Your task to perform on an android device: toggle data saver in the chrome app Image 0: 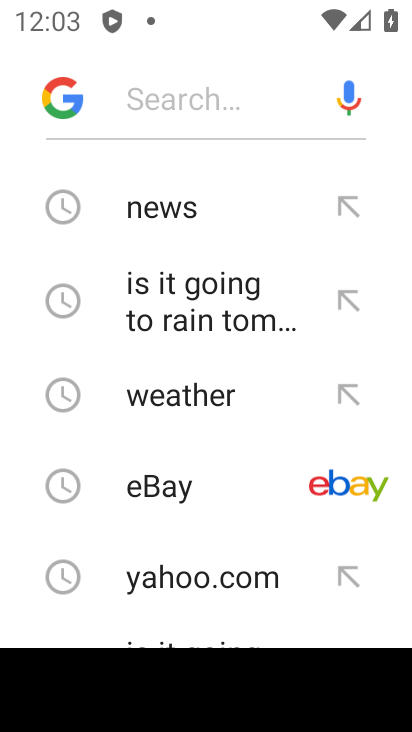
Step 0: press back button
Your task to perform on an android device: toggle data saver in the chrome app Image 1: 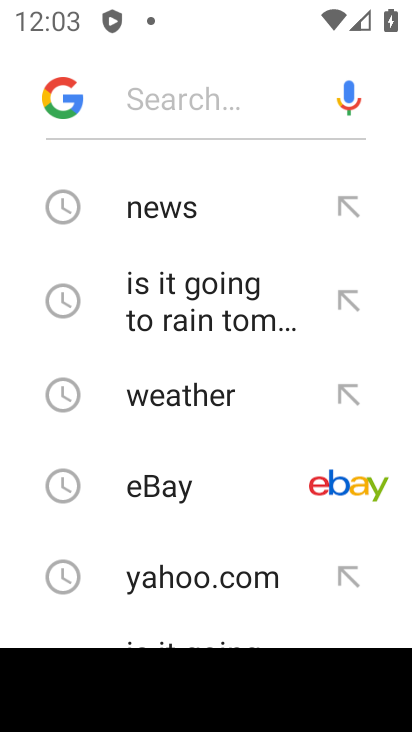
Step 1: press back button
Your task to perform on an android device: toggle data saver in the chrome app Image 2: 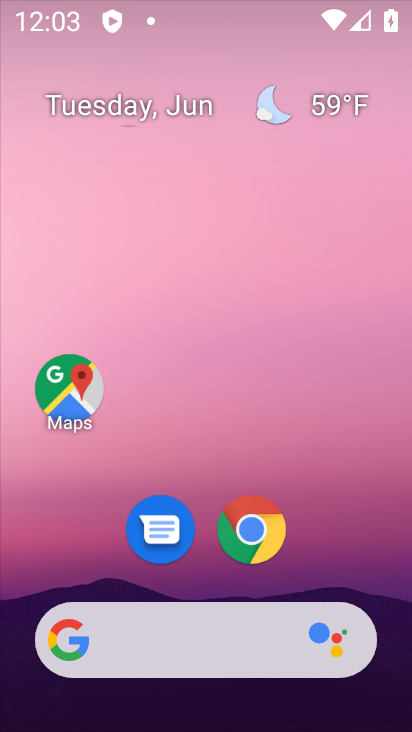
Step 2: press back button
Your task to perform on an android device: toggle data saver in the chrome app Image 3: 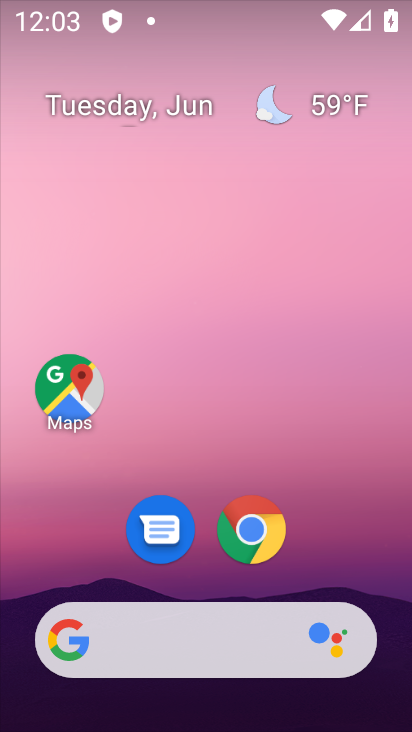
Step 3: press home button
Your task to perform on an android device: toggle data saver in the chrome app Image 4: 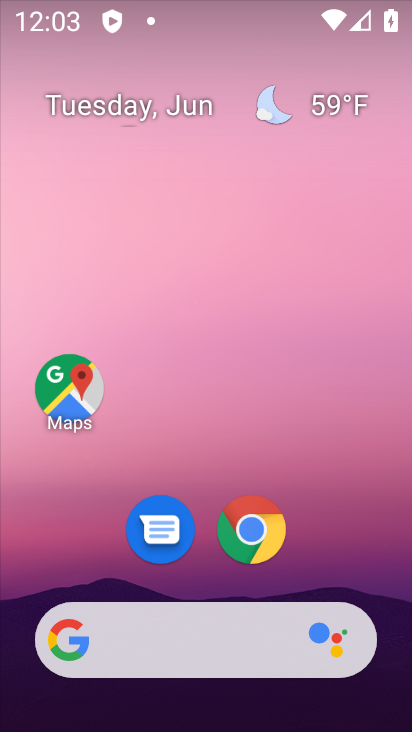
Step 4: drag from (269, 695) to (158, 101)
Your task to perform on an android device: toggle data saver in the chrome app Image 5: 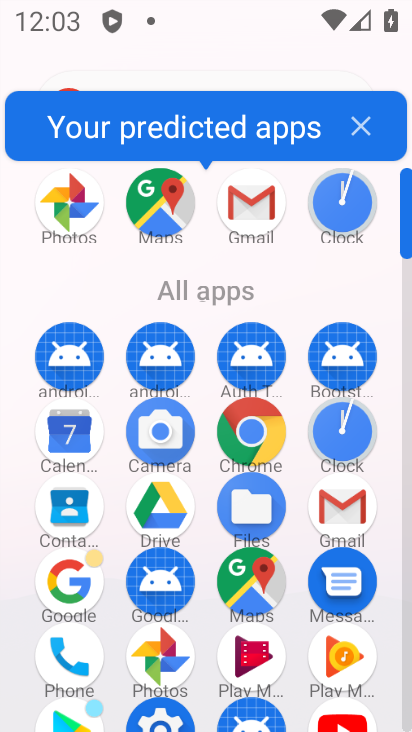
Step 5: click (263, 427)
Your task to perform on an android device: toggle data saver in the chrome app Image 6: 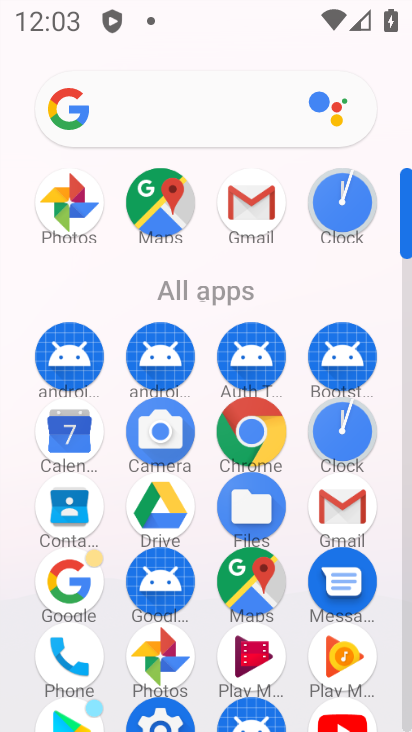
Step 6: click (251, 421)
Your task to perform on an android device: toggle data saver in the chrome app Image 7: 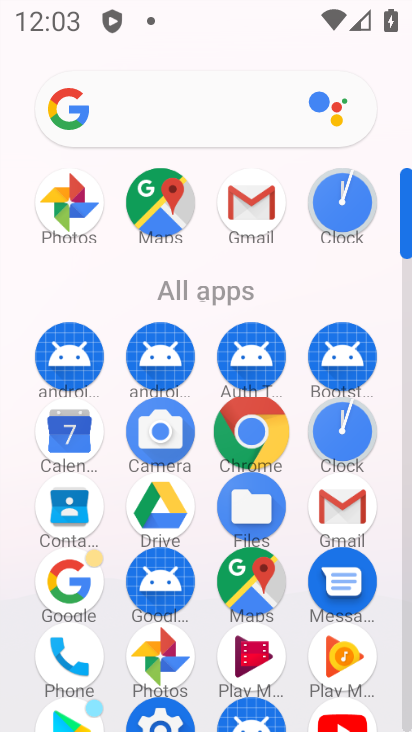
Step 7: click (251, 421)
Your task to perform on an android device: toggle data saver in the chrome app Image 8: 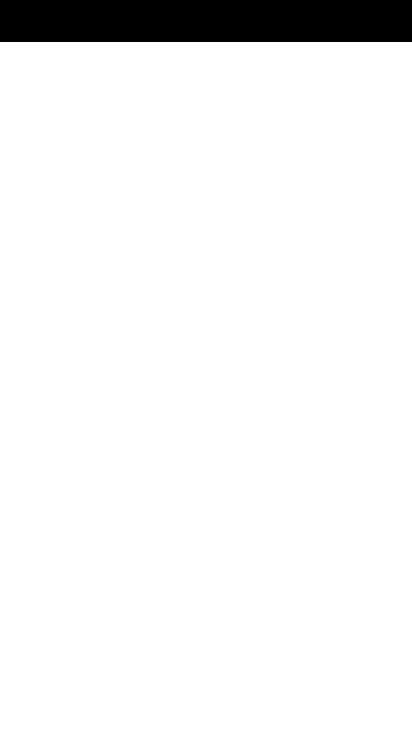
Step 8: click (250, 414)
Your task to perform on an android device: toggle data saver in the chrome app Image 9: 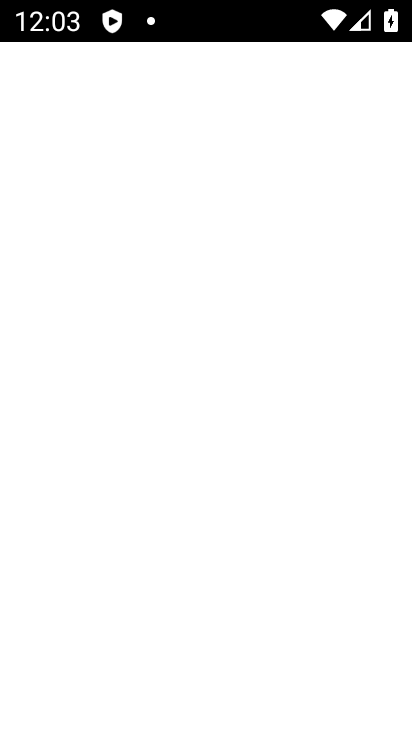
Step 9: click (250, 414)
Your task to perform on an android device: toggle data saver in the chrome app Image 10: 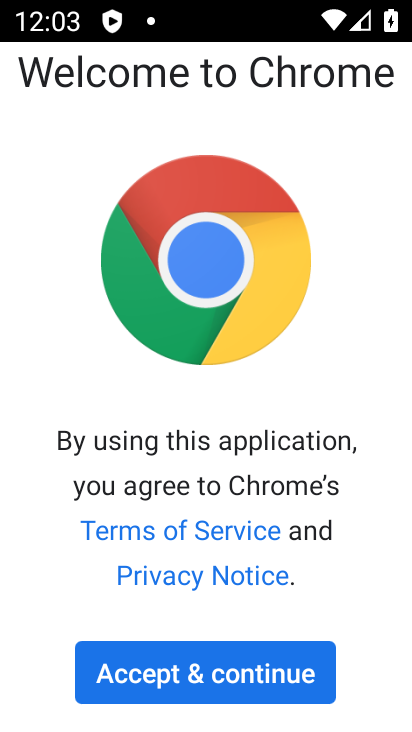
Step 10: click (216, 663)
Your task to perform on an android device: toggle data saver in the chrome app Image 11: 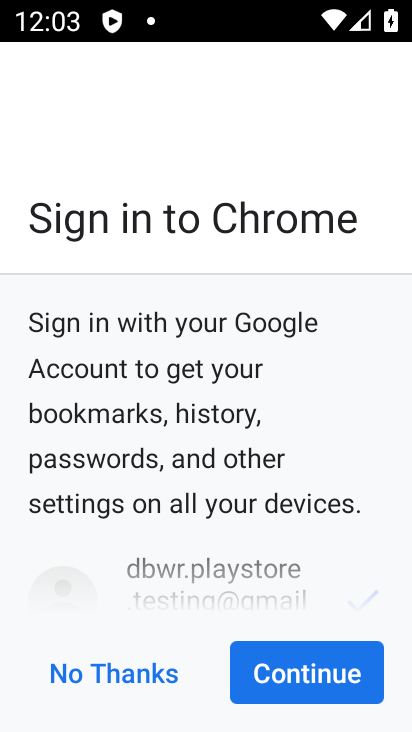
Step 11: click (299, 661)
Your task to perform on an android device: toggle data saver in the chrome app Image 12: 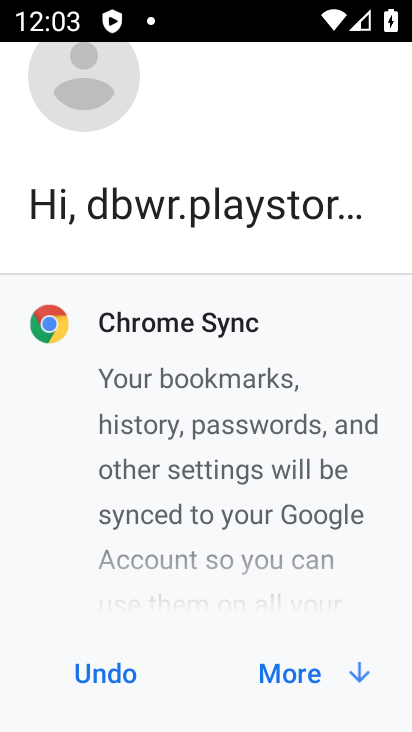
Step 12: click (315, 668)
Your task to perform on an android device: toggle data saver in the chrome app Image 13: 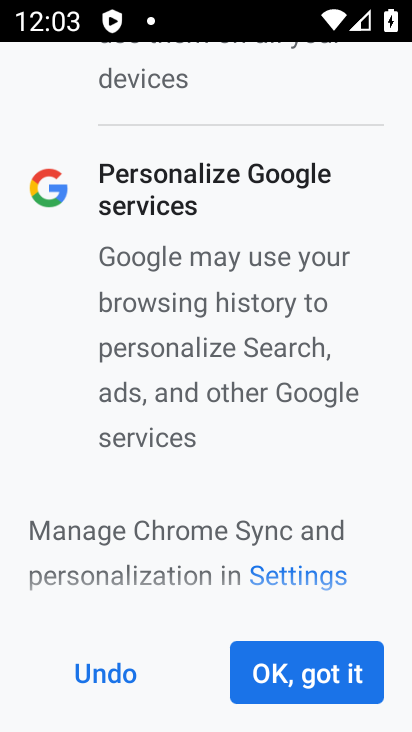
Step 13: click (312, 691)
Your task to perform on an android device: toggle data saver in the chrome app Image 14: 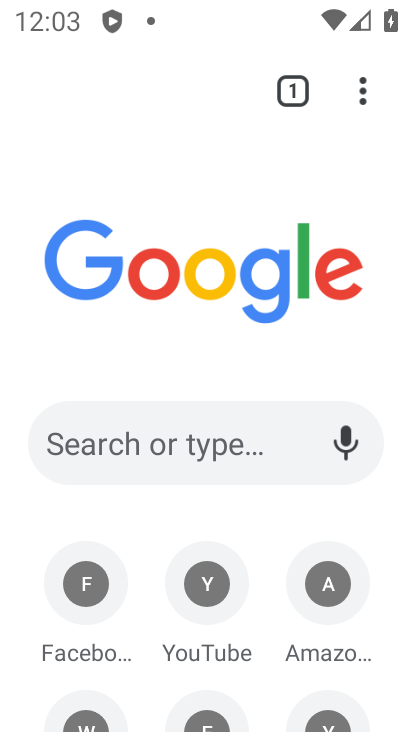
Step 14: drag from (363, 96) to (95, 565)
Your task to perform on an android device: toggle data saver in the chrome app Image 15: 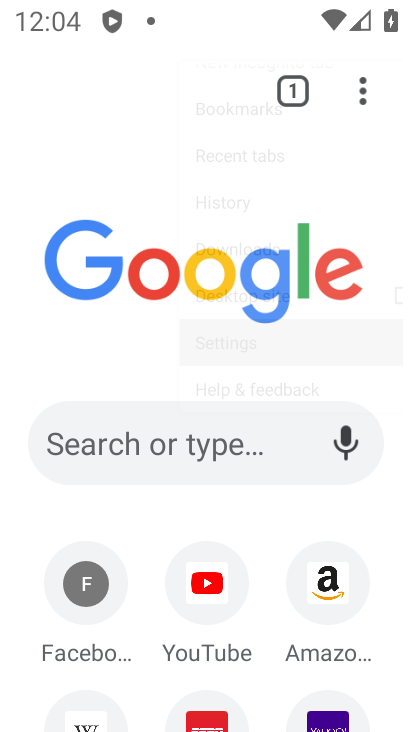
Step 15: click (96, 562)
Your task to perform on an android device: toggle data saver in the chrome app Image 16: 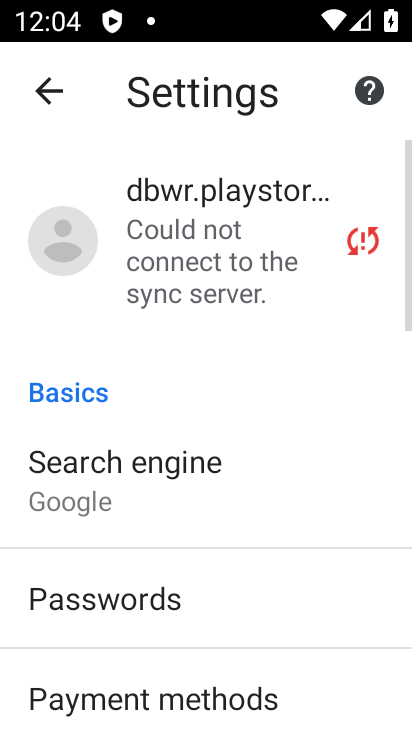
Step 16: drag from (146, 441) to (132, 274)
Your task to perform on an android device: toggle data saver in the chrome app Image 17: 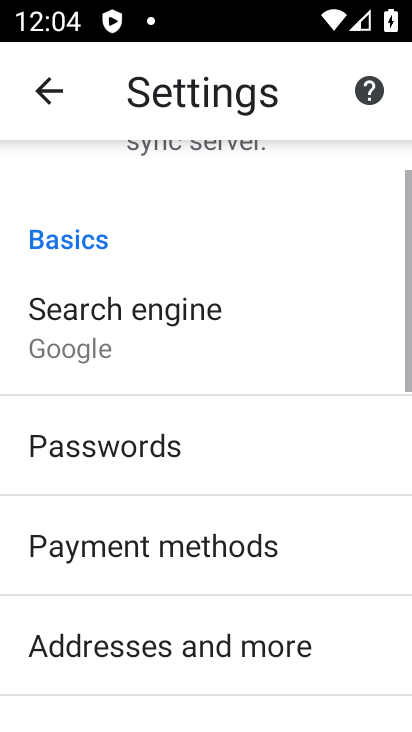
Step 17: drag from (164, 418) to (129, 229)
Your task to perform on an android device: toggle data saver in the chrome app Image 18: 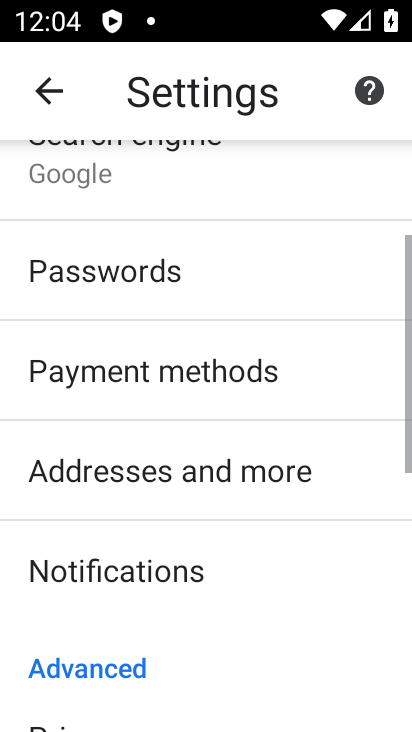
Step 18: drag from (113, 440) to (105, 217)
Your task to perform on an android device: toggle data saver in the chrome app Image 19: 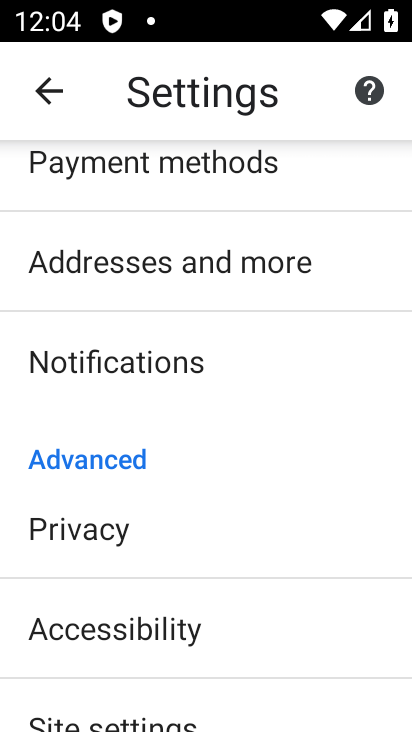
Step 19: drag from (161, 603) to (135, 318)
Your task to perform on an android device: toggle data saver in the chrome app Image 20: 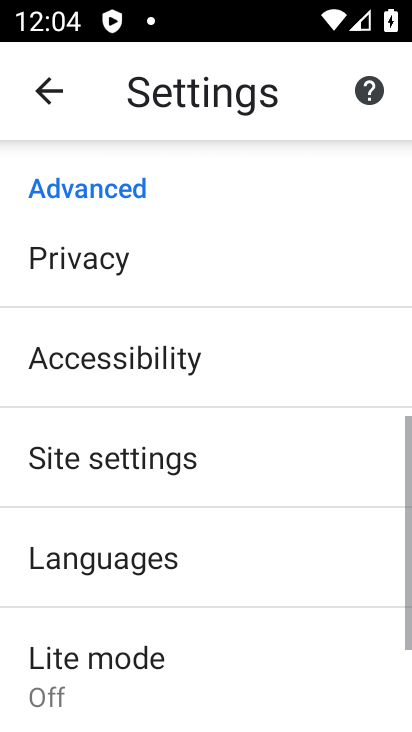
Step 20: drag from (199, 507) to (156, 308)
Your task to perform on an android device: toggle data saver in the chrome app Image 21: 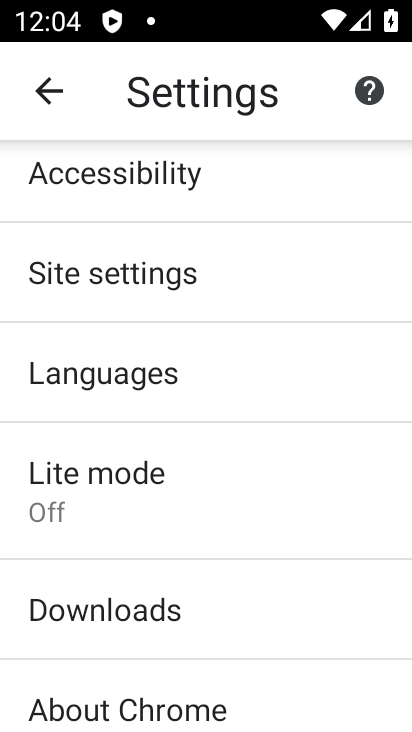
Step 21: click (91, 482)
Your task to perform on an android device: toggle data saver in the chrome app Image 22: 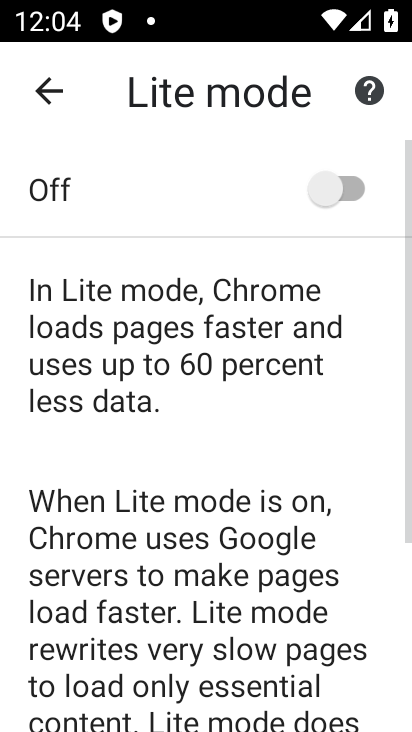
Step 22: click (321, 179)
Your task to perform on an android device: toggle data saver in the chrome app Image 23: 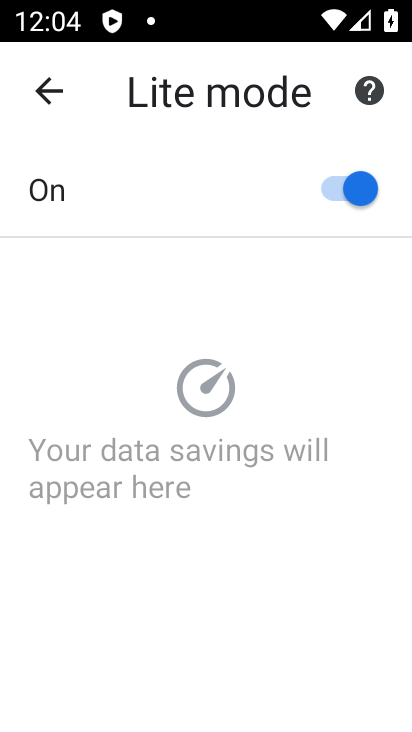
Step 23: task complete